Your task to perform on an android device: check data usage Image 0: 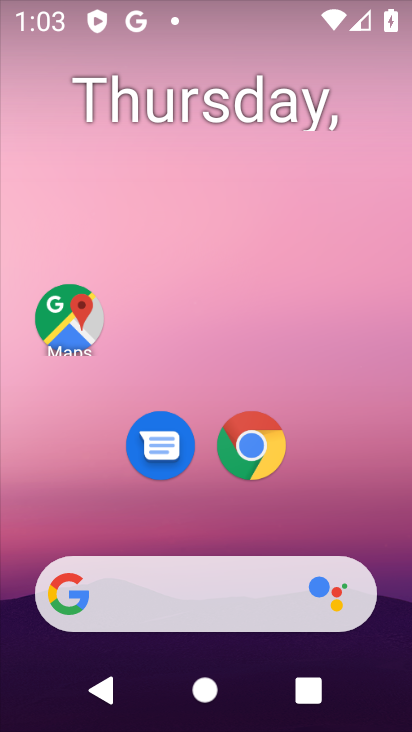
Step 0: drag from (211, 519) to (186, 208)
Your task to perform on an android device: check data usage Image 1: 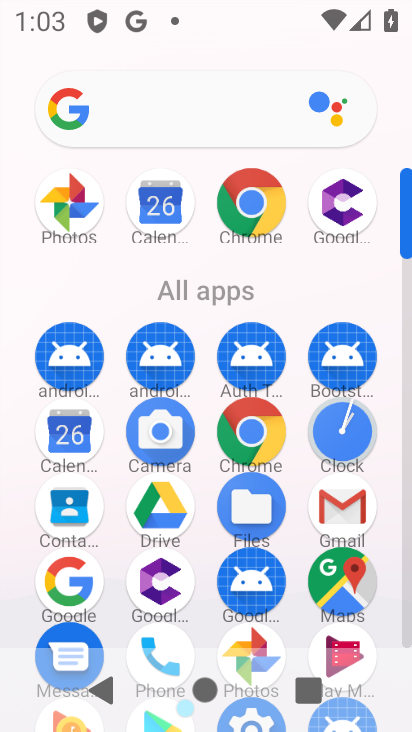
Step 1: drag from (200, 610) to (189, 233)
Your task to perform on an android device: check data usage Image 2: 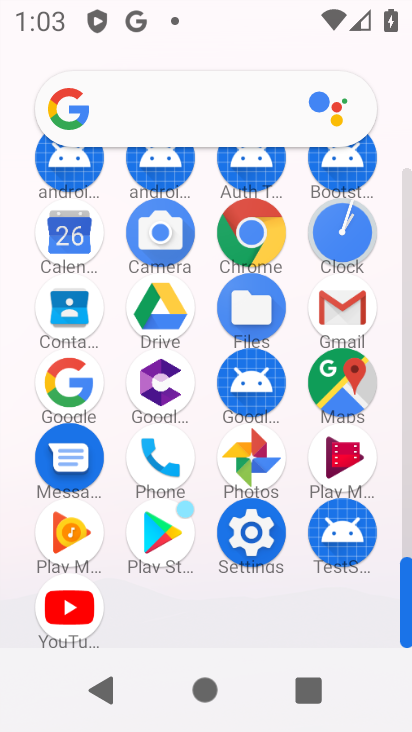
Step 2: click (248, 531)
Your task to perform on an android device: check data usage Image 3: 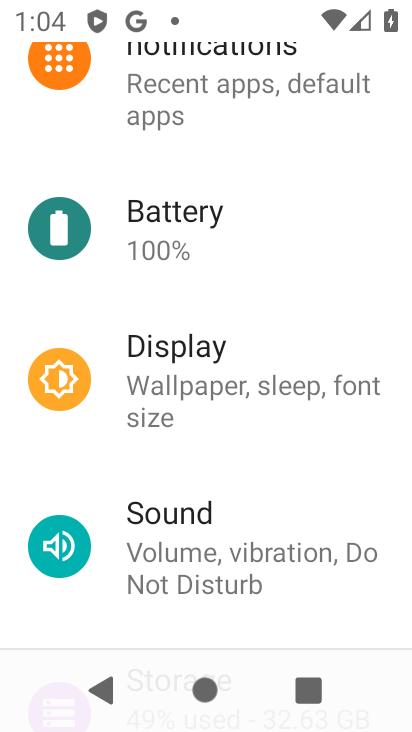
Step 3: drag from (212, 157) to (287, 631)
Your task to perform on an android device: check data usage Image 4: 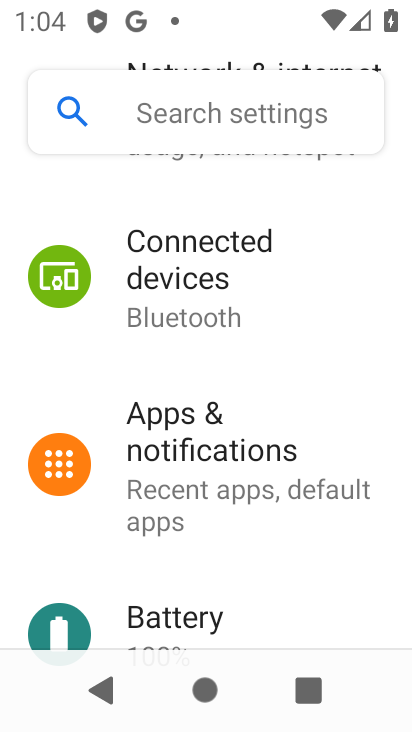
Step 4: drag from (269, 313) to (336, 690)
Your task to perform on an android device: check data usage Image 5: 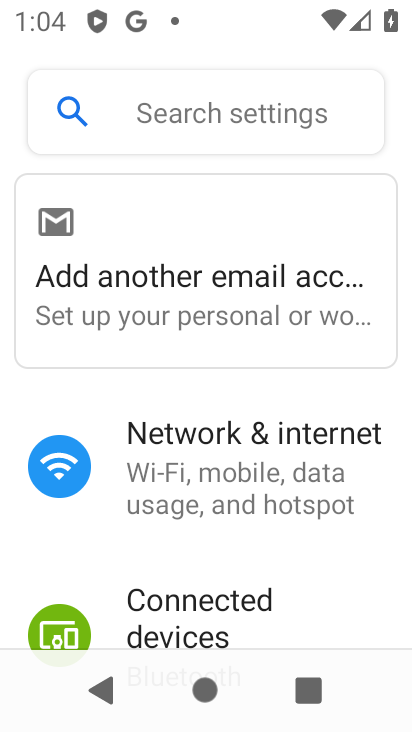
Step 5: drag from (219, 400) to (310, 168)
Your task to perform on an android device: check data usage Image 6: 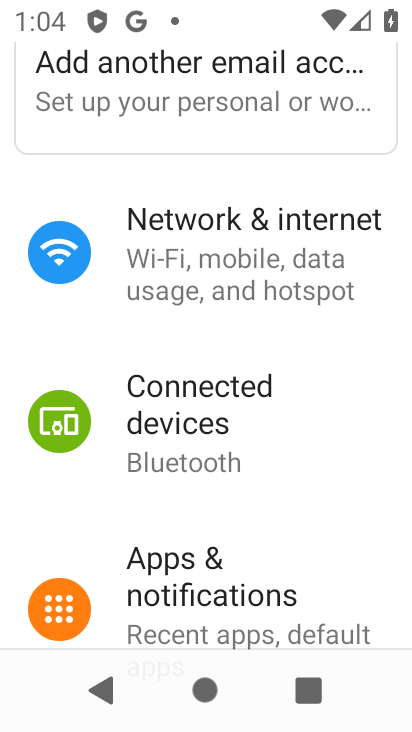
Step 6: click (197, 246)
Your task to perform on an android device: check data usage Image 7: 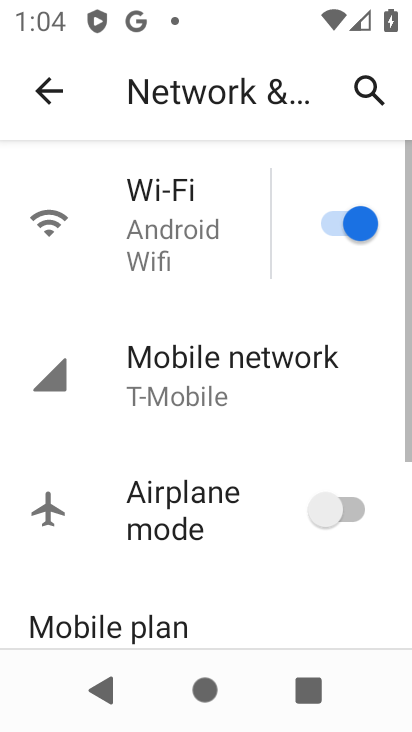
Step 7: click (247, 371)
Your task to perform on an android device: check data usage Image 8: 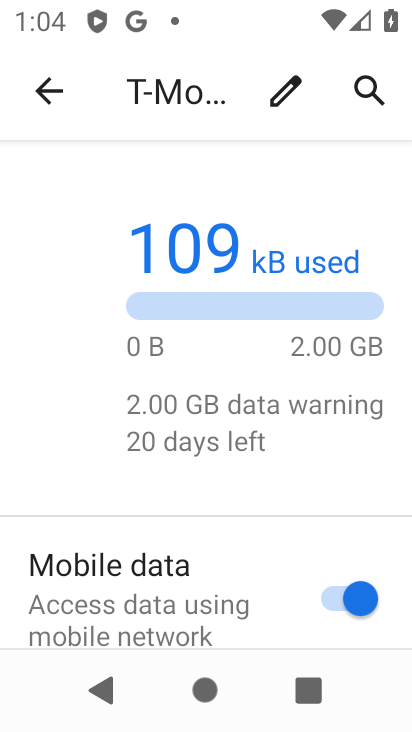
Step 8: task complete